Your task to perform on an android device: Open Google Maps and go to "Timeline" Image 0: 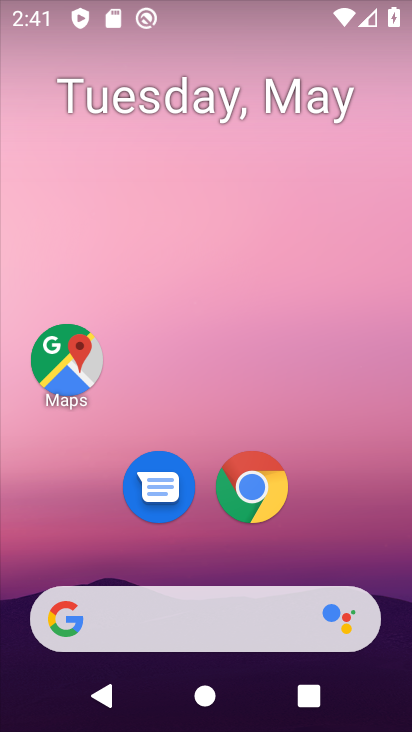
Step 0: click (55, 348)
Your task to perform on an android device: Open Google Maps and go to "Timeline" Image 1: 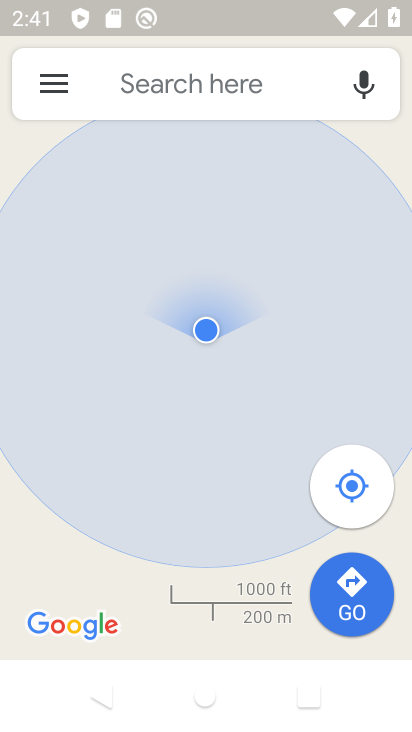
Step 1: click (48, 82)
Your task to perform on an android device: Open Google Maps and go to "Timeline" Image 2: 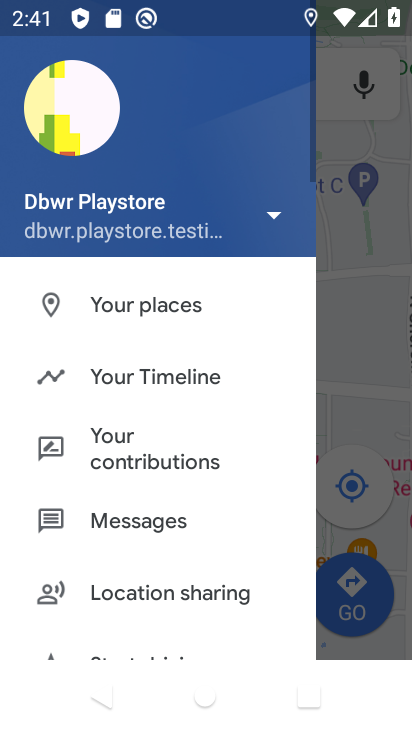
Step 2: click (177, 382)
Your task to perform on an android device: Open Google Maps and go to "Timeline" Image 3: 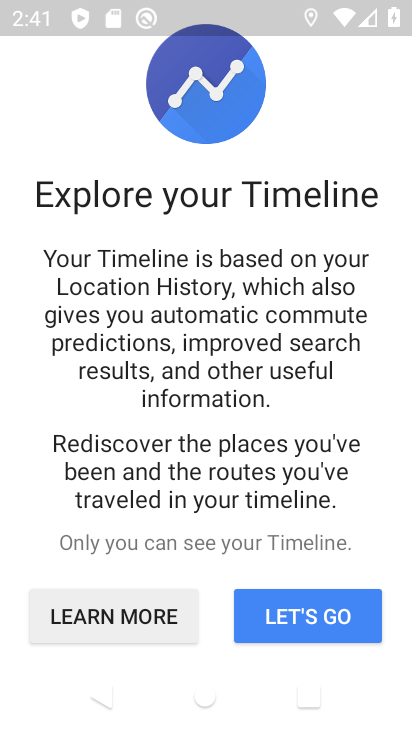
Step 3: click (354, 613)
Your task to perform on an android device: Open Google Maps and go to "Timeline" Image 4: 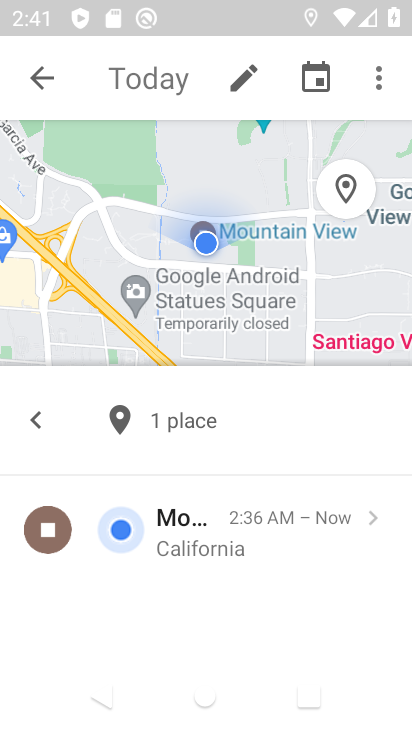
Step 4: task complete